Your task to perform on an android device: Open calendar and show me the third week of next month Image 0: 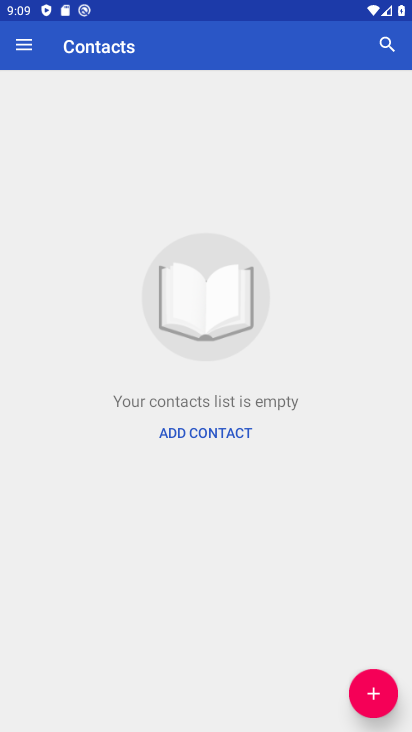
Step 0: press home button
Your task to perform on an android device: Open calendar and show me the third week of next month Image 1: 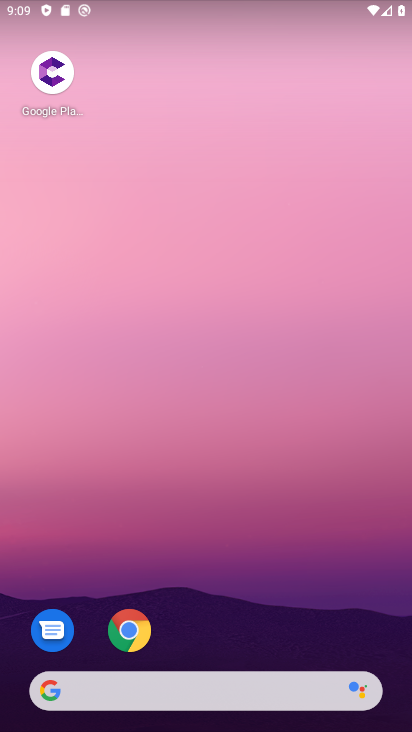
Step 1: drag from (166, 502) to (147, 298)
Your task to perform on an android device: Open calendar and show me the third week of next month Image 2: 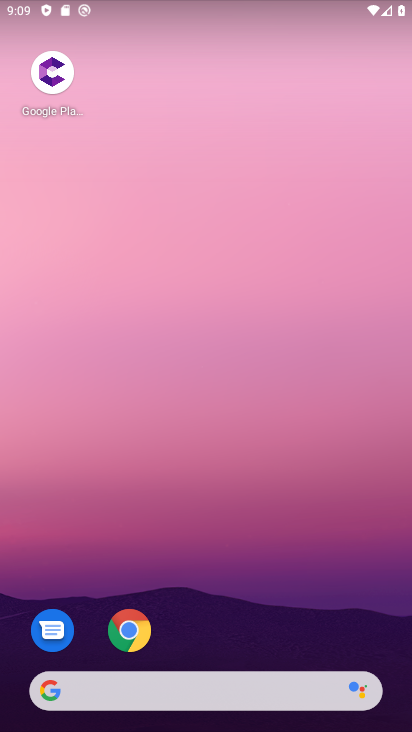
Step 2: drag from (204, 632) to (217, 88)
Your task to perform on an android device: Open calendar and show me the third week of next month Image 3: 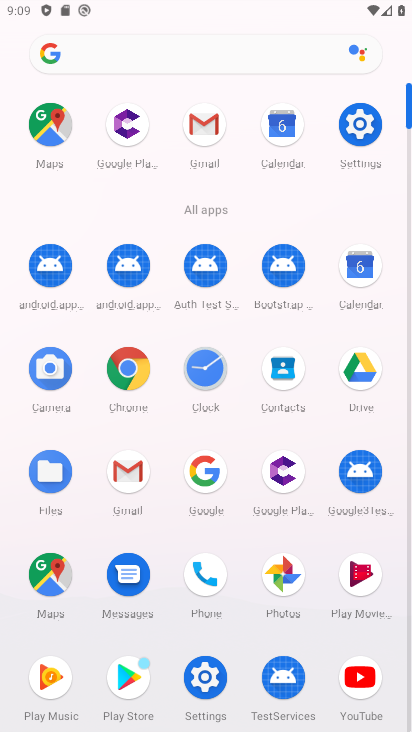
Step 3: click (355, 266)
Your task to perform on an android device: Open calendar and show me the third week of next month Image 4: 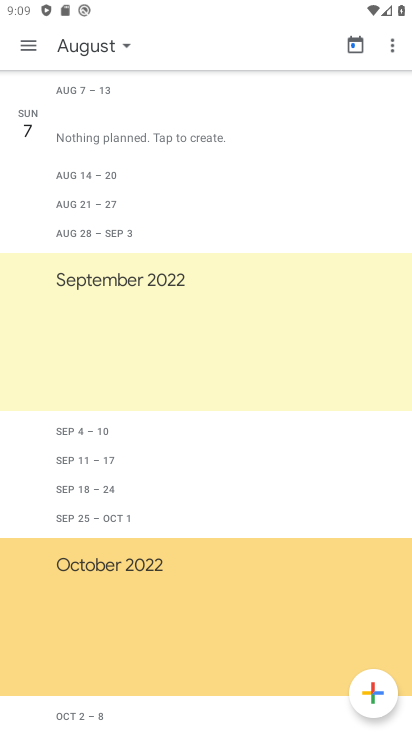
Step 4: drag from (160, 488) to (157, 290)
Your task to perform on an android device: Open calendar and show me the third week of next month Image 5: 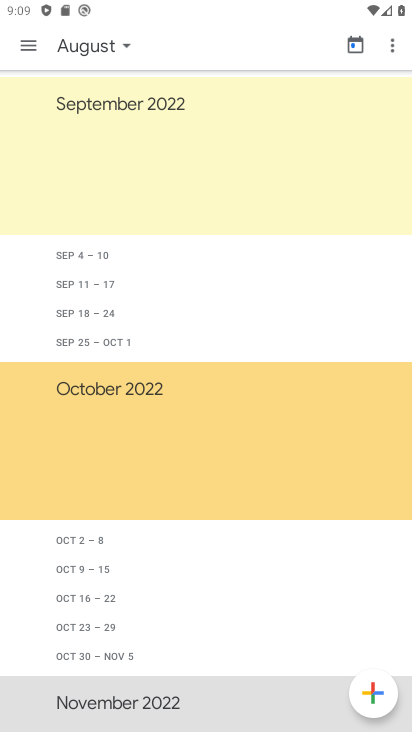
Step 5: drag from (166, 102) to (157, 545)
Your task to perform on an android device: Open calendar and show me the third week of next month Image 6: 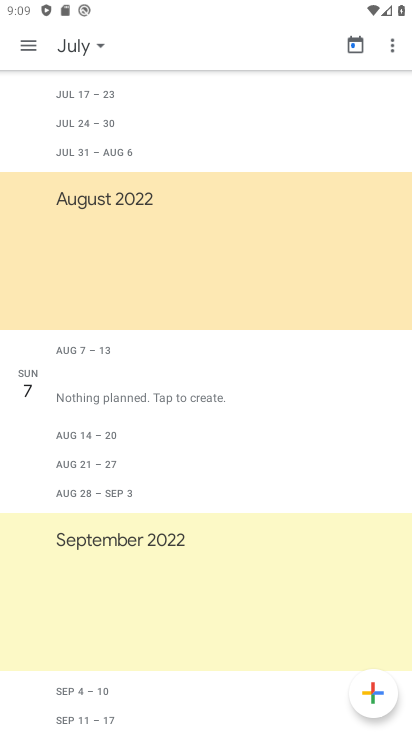
Step 6: drag from (157, 202) to (169, 585)
Your task to perform on an android device: Open calendar and show me the third week of next month Image 7: 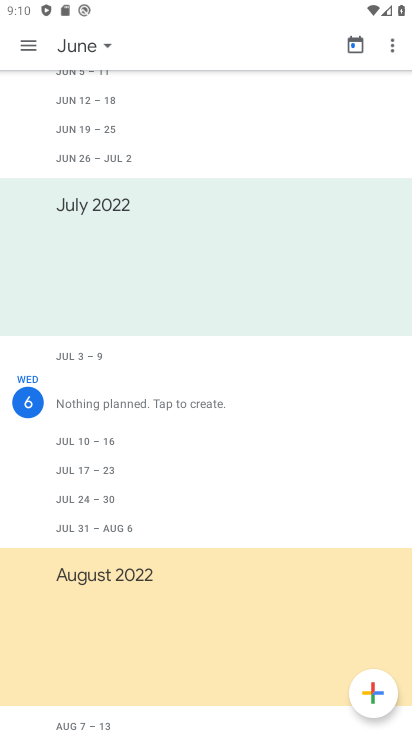
Step 7: click (86, 47)
Your task to perform on an android device: Open calendar and show me the third week of next month Image 8: 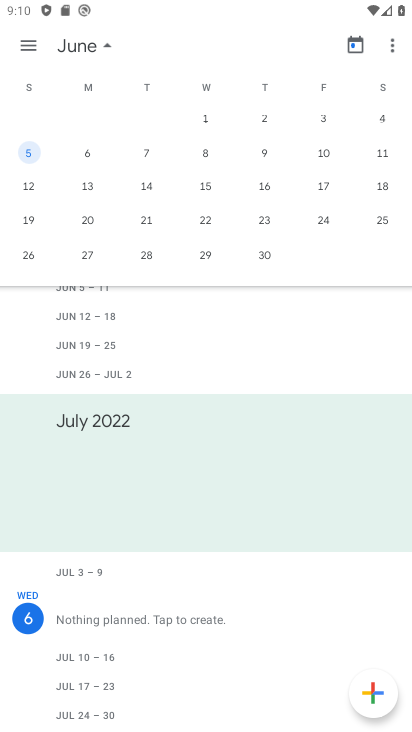
Step 8: drag from (337, 205) to (20, 212)
Your task to perform on an android device: Open calendar and show me the third week of next month Image 9: 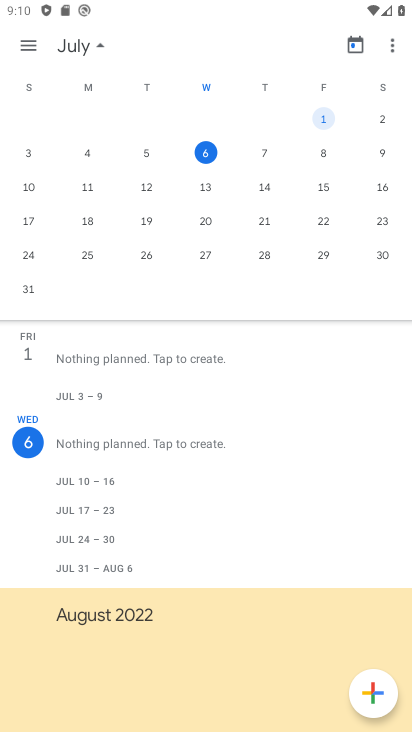
Step 9: drag from (305, 200) to (0, 268)
Your task to perform on an android device: Open calendar and show me the third week of next month Image 10: 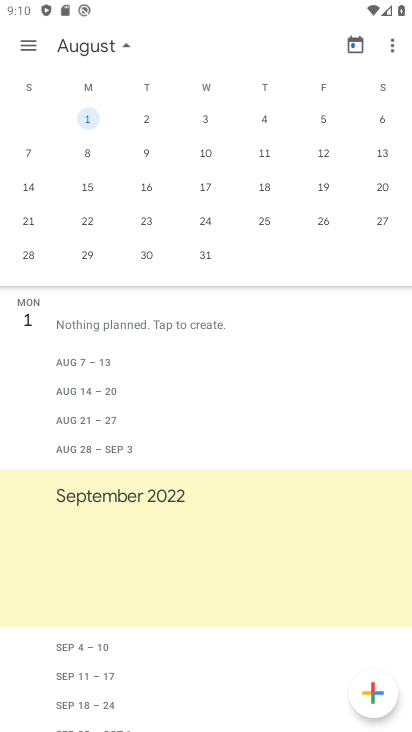
Step 10: click (28, 181)
Your task to perform on an android device: Open calendar and show me the third week of next month Image 11: 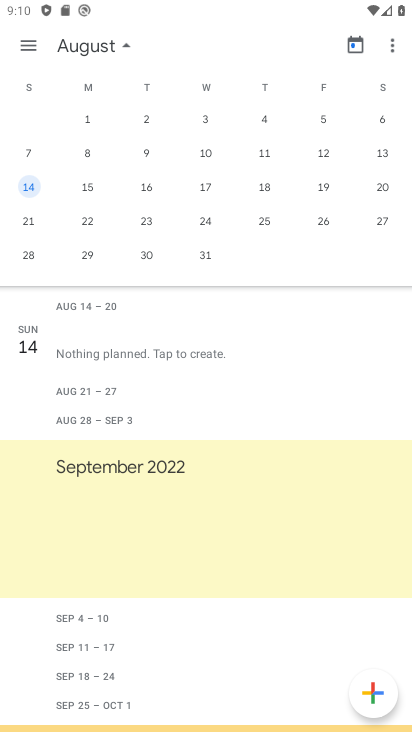
Step 11: task complete